Your task to perform on an android device: Set the phone to "Do not disturb". Image 0: 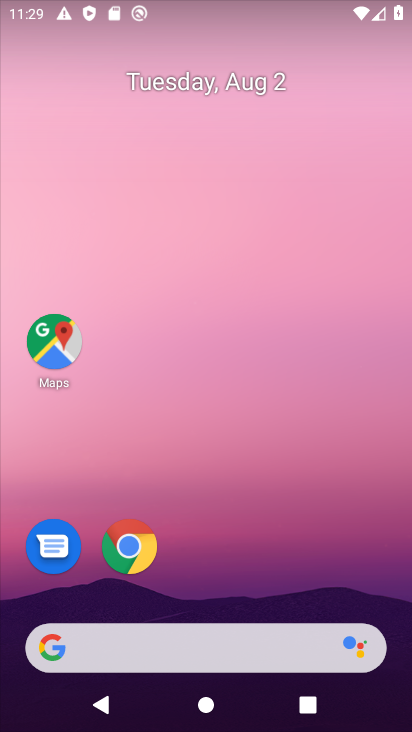
Step 0: drag from (219, 590) to (223, 123)
Your task to perform on an android device: Set the phone to "Do not disturb". Image 1: 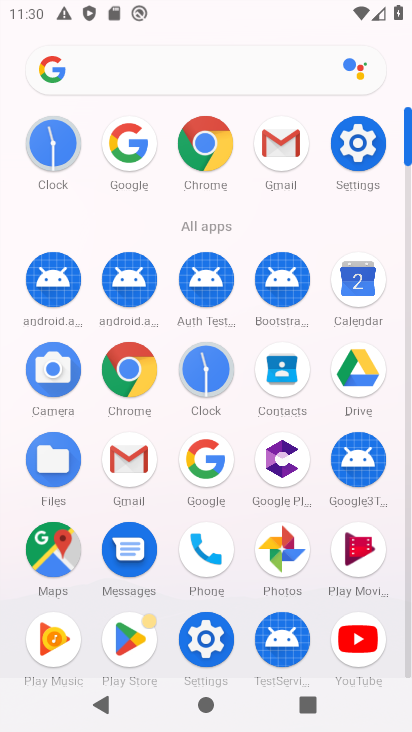
Step 1: click (342, 143)
Your task to perform on an android device: Set the phone to "Do not disturb". Image 2: 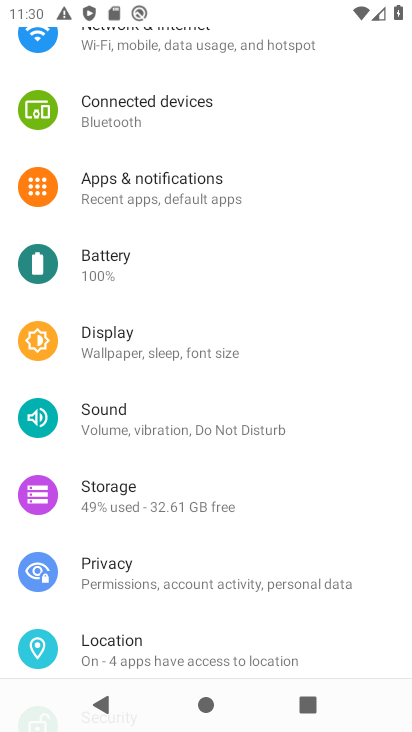
Step 2: click (127, 405)
Your task to perform on an android device: Set the phone to "Do not disturb". Image 3: 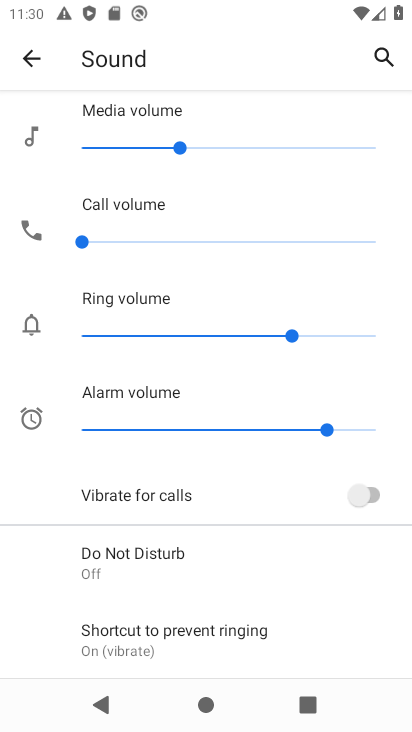
Step 3: click (133, 578)
Your task to perform on an android device: Set the phone to "Do not disturb". Image 4: 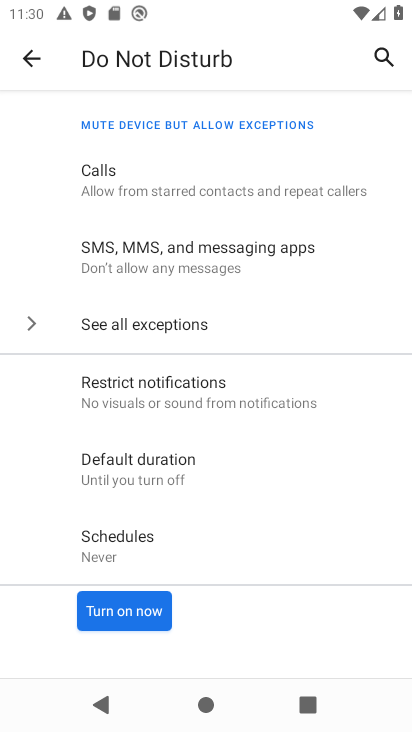
Step 4: click (141, 615)
Your task to perform on an android device: Set the phone to "Do not disturb". Image 5: 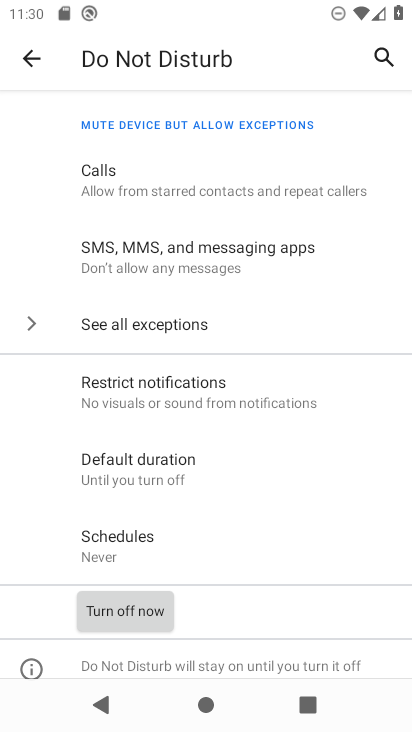
Step 5: task complete